Your task to perform on an android device: What's the weather? Image 0: 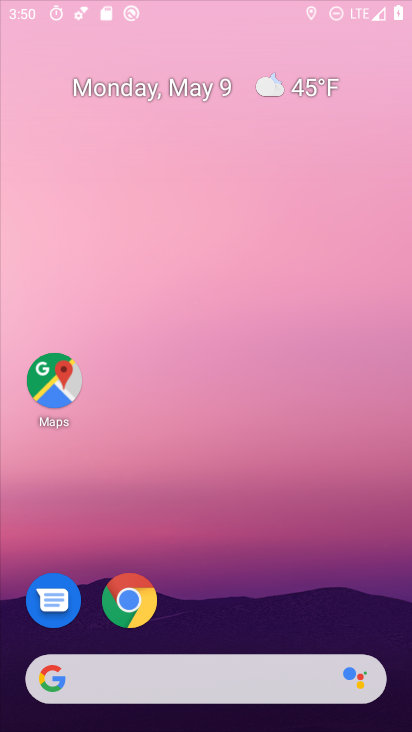
Step 0: drag from (216, 605) to (275, 8)
Your task to perform on an android device: What's the weather? Image 1: 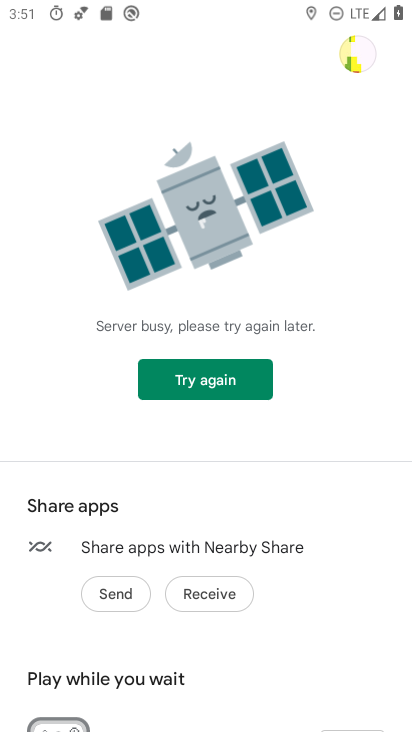
Step 1: press home button
Your task to perform on an android device: What's the weather? Image 2: 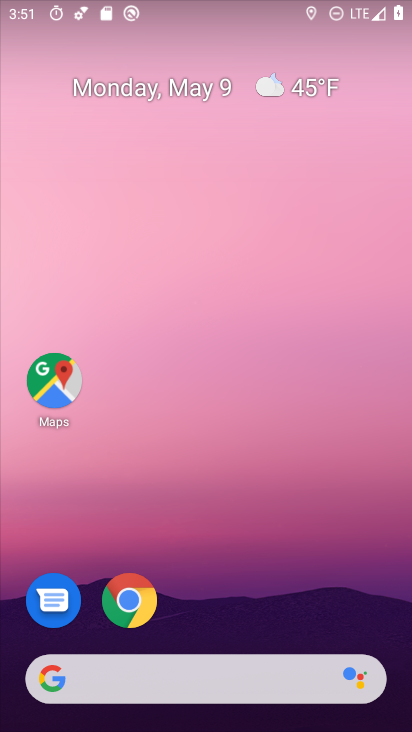
Step 2: click (140, 664)
Your task to perform on an android device: What's the weather? Image 3: 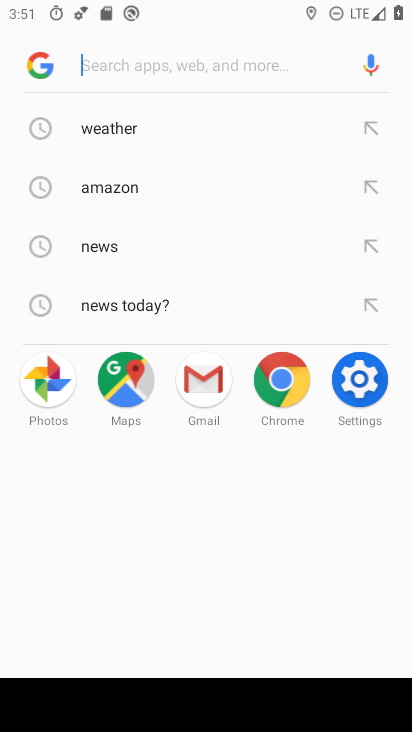
Step 3: click (116, 140)
Your task to perform on an android device: What's the weather? Image 4: 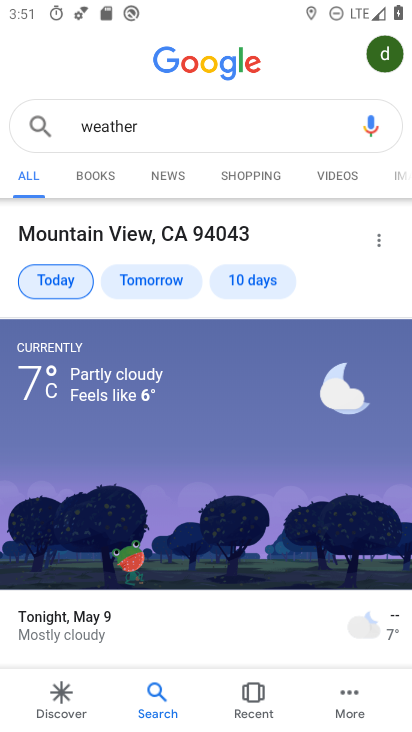
Step 4: task complete